Your task to perform on an android device: Go to CNN.com Image 0: 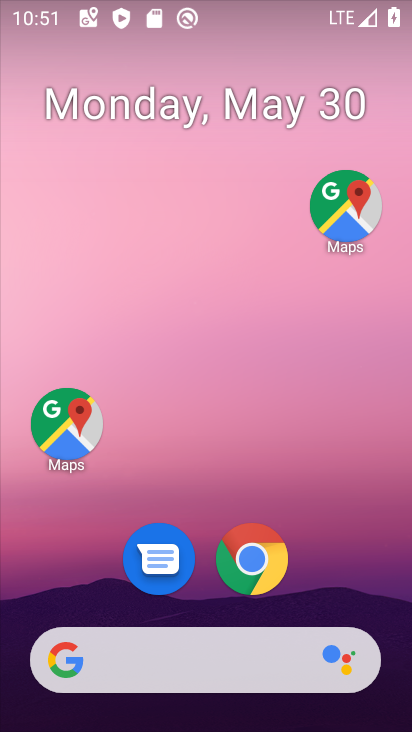
Step 0: click (256, 557)
Your task to perform on an android device: Go to CNN.com Image 1: 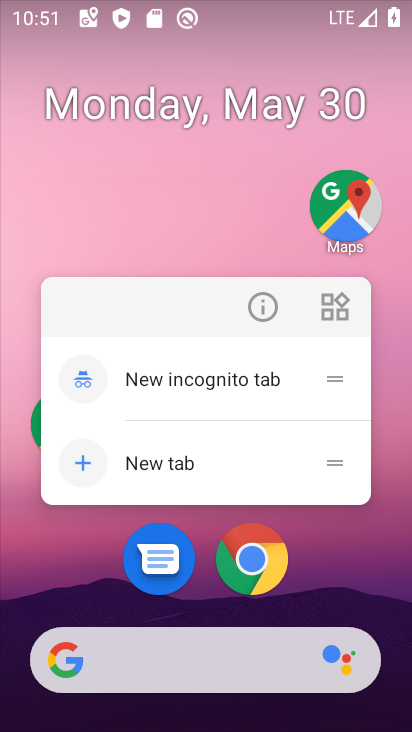
Step 1: click (251, 570)
Your task to perform on an android device: Go to CNN.com Image 2: 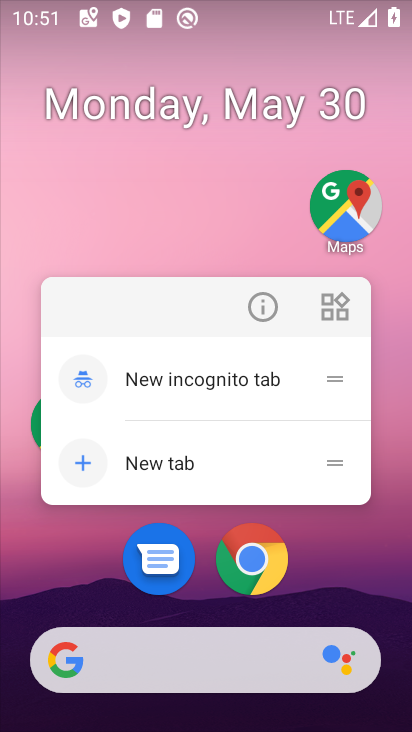
Step 2: click (249, 572)
Your task to perform on an android device: Go to CNN.com Image 3: 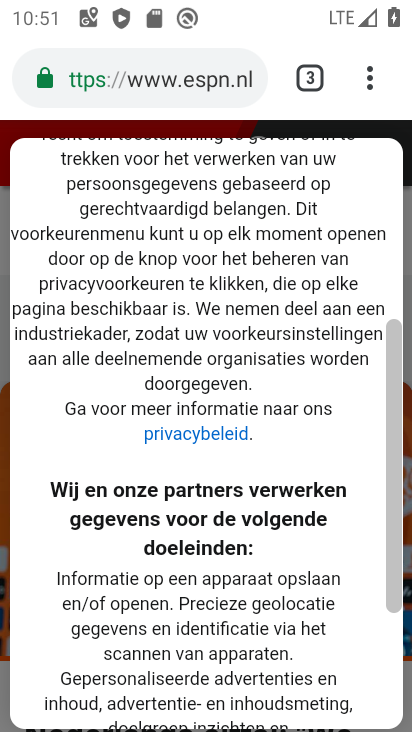
Step 3: click (202, 67)
Your task to perform on an android device: Go to CNN.com Image 4: 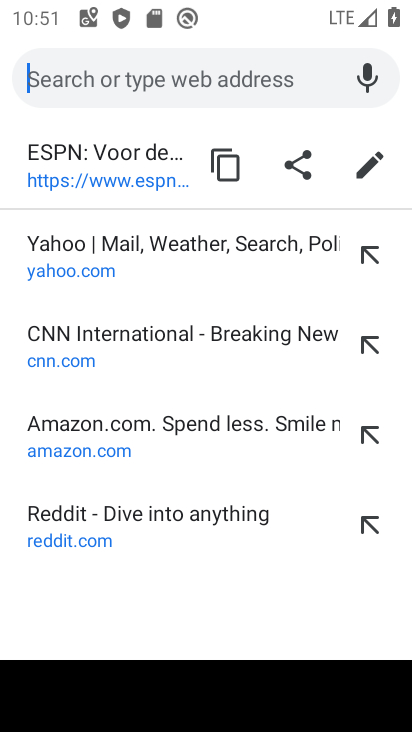
Step 4: click (50, 361)
Your task to perform on an android device: Go to CNN.com Image 5: 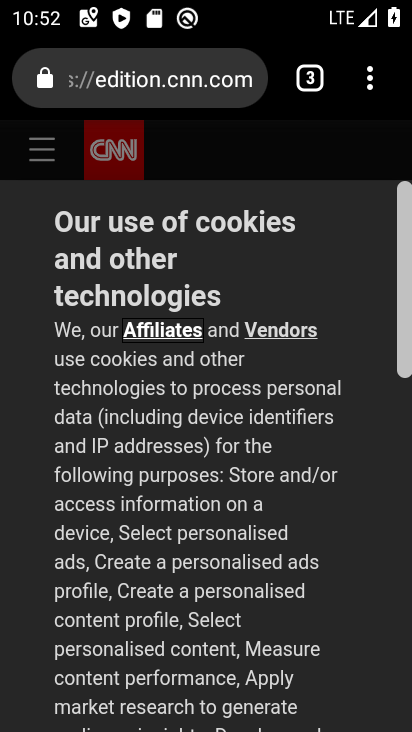
Step 5: task complete